Your task to perform on an android device: uninstall "Spotify" Image 0: 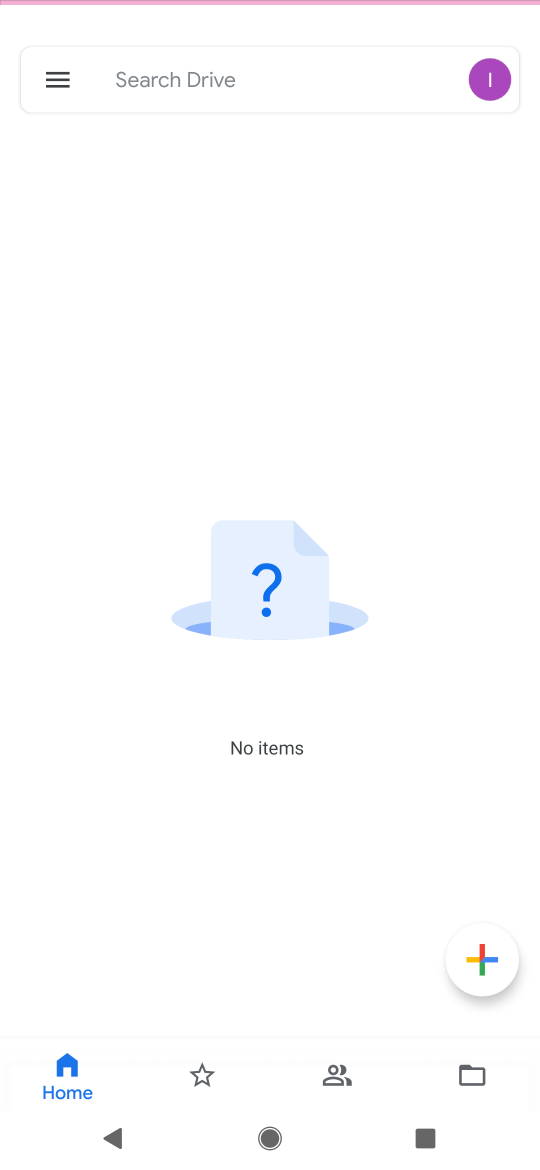
Step 0: click (456, 176)
Your task to perform on an android device: uninstall "Spotify" Image 1: 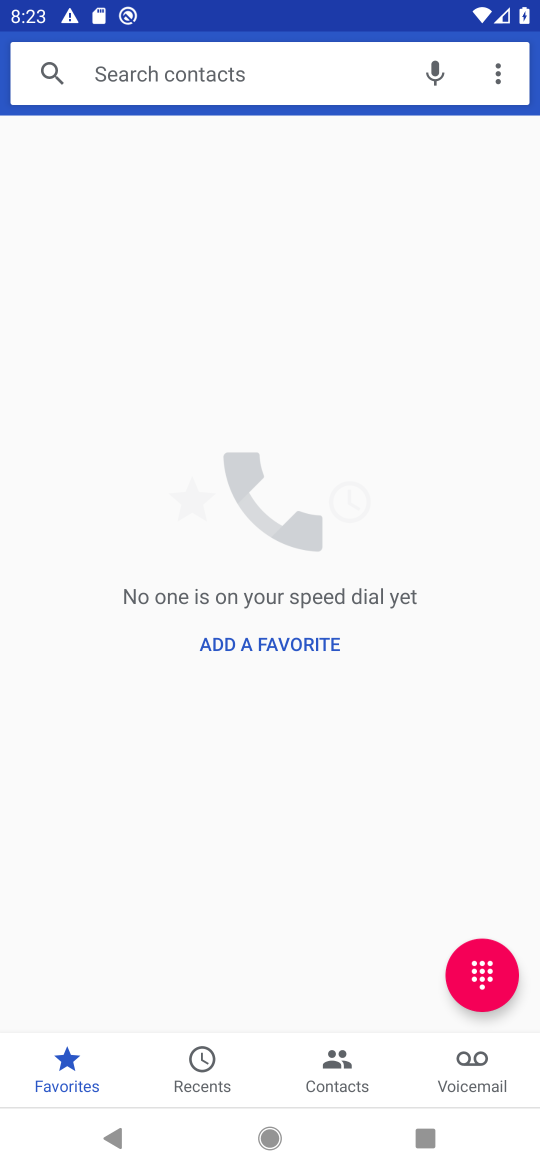
Step 1: press home button
Your task to perform on an android device: uninstall "Spotify" Image 2: 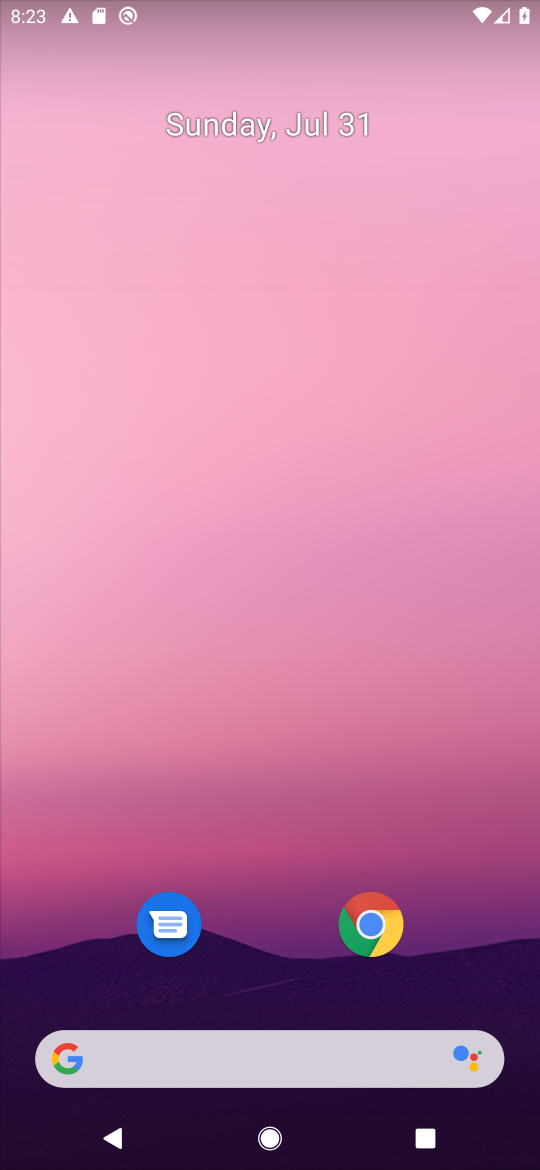
Step 2: drag from (244, 599) to (248, 541)
Your task to perform on an android device: uninstall "Spotify" Image 3: 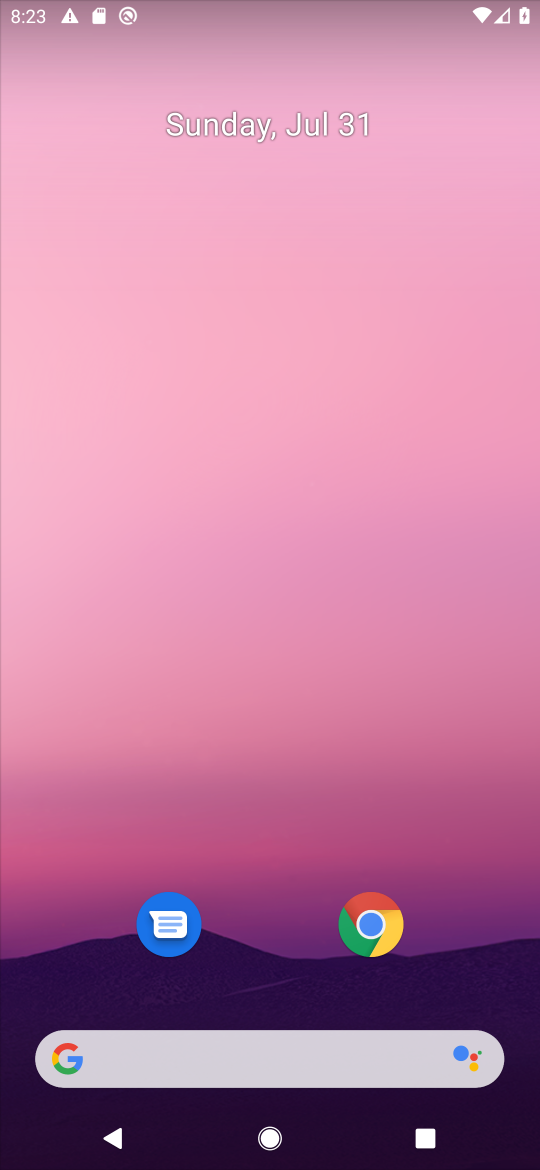
Step 3: drag from (287, 1021) to (327, 316)
Your task to perform on an android device: uninstall "Spotify" Image 4: 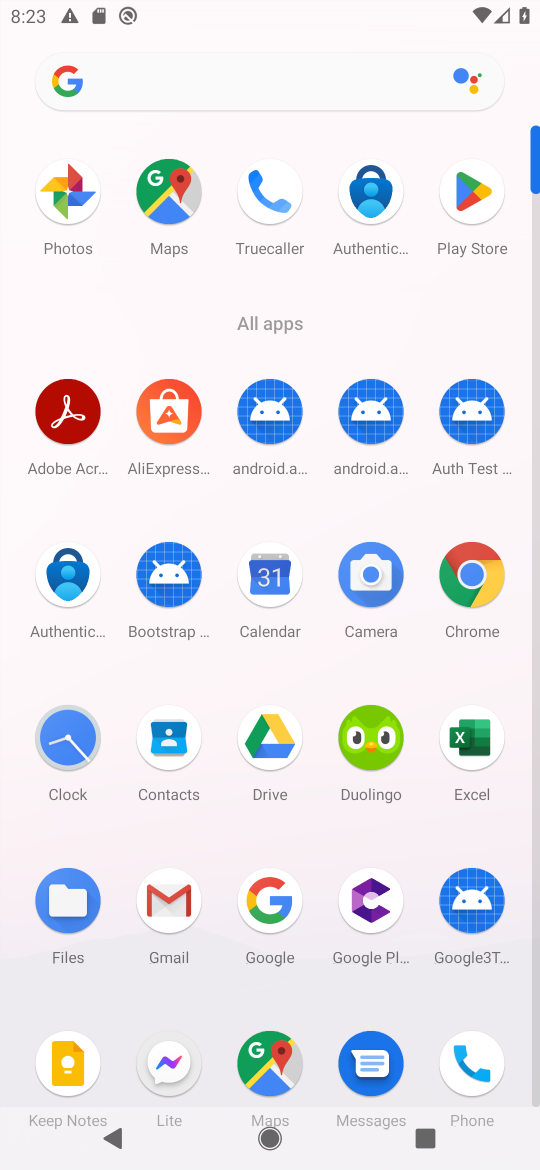
Step 4: click (468, 198)
Your task to perform on an android device: uninstall "Spotify" Image 5: 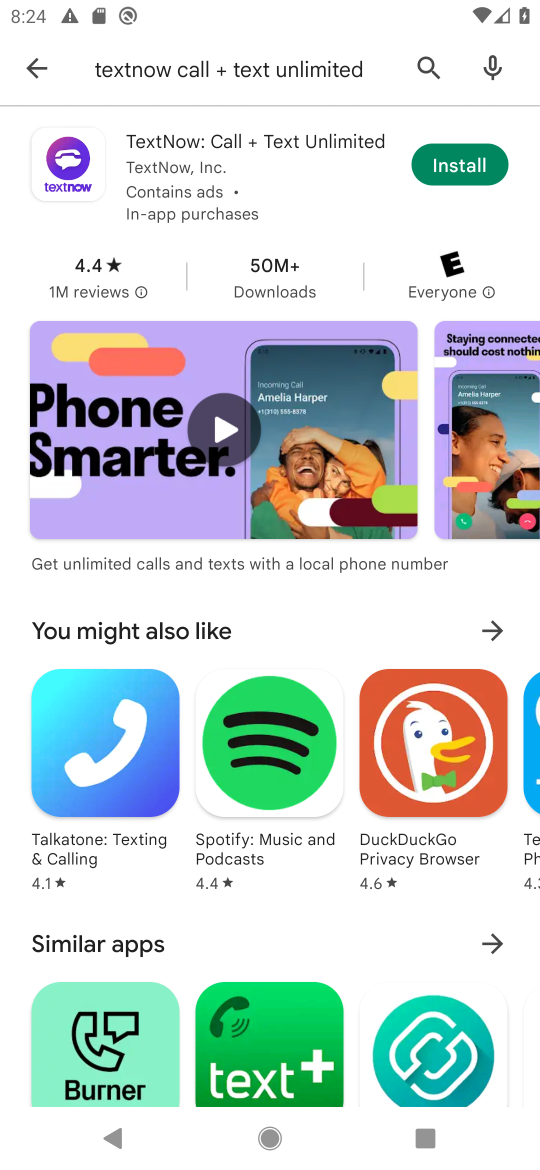
Step 5: click (45, 72)
Your task to perform on an android device: uninstall "Spotify" Image 6: 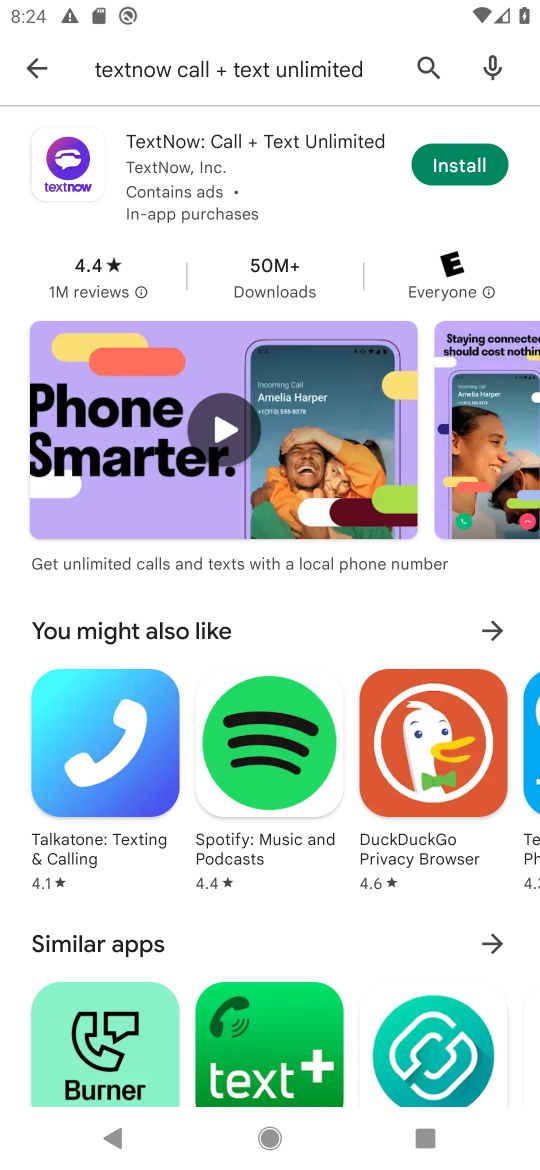
Step 6: click (32, 62)
Your task to perform on an android device: uninstall "Spotify" Image 7: 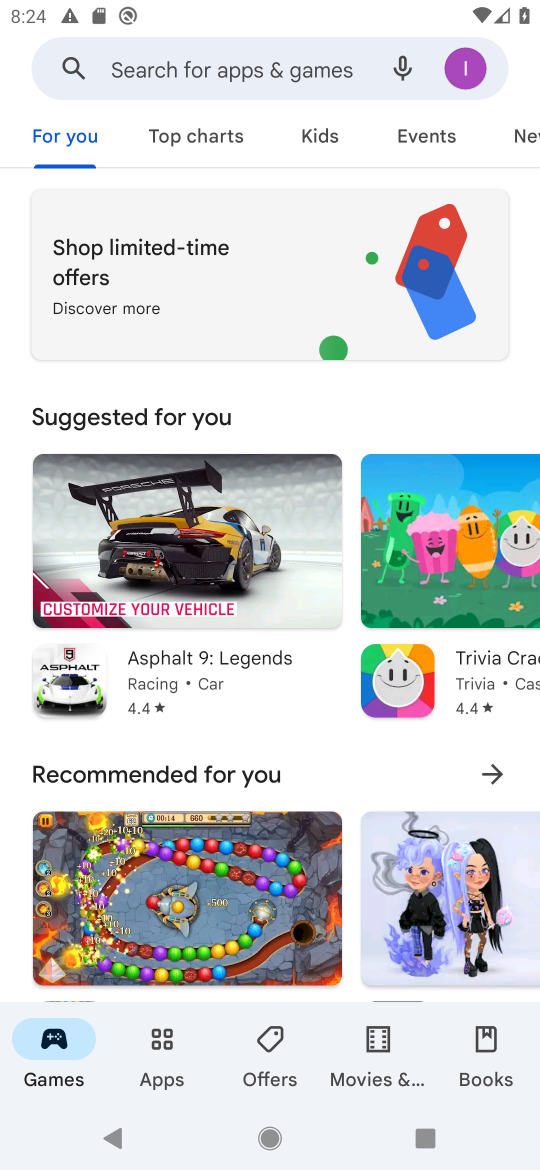
Step 7: click (165, 63)
Your task to perform on an android device: uninstall "Spotify" Image 8: 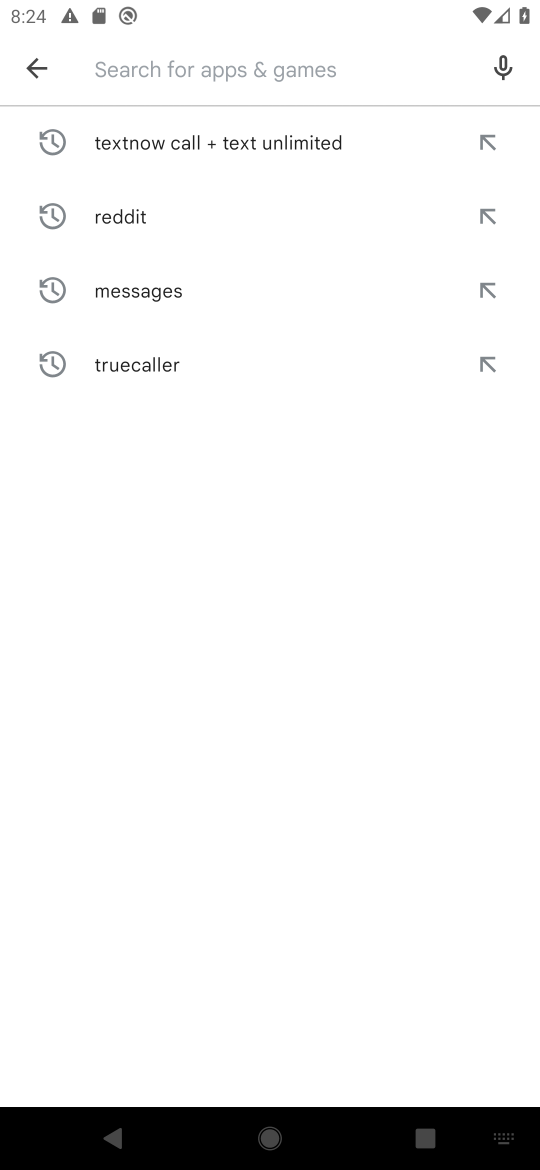
Step 8: type "Spotify"
Your task to perform on an android device: uninstall "Spotify" Image 9: 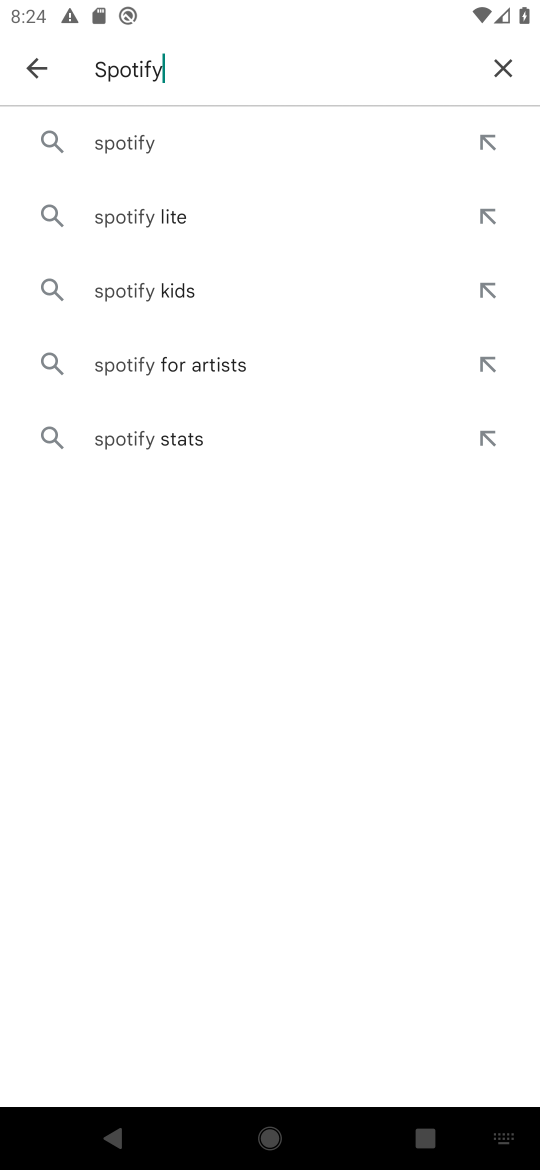
Step 9: click (91, 164)
Your task to perform on an android device: uninstall "Spotify" Image 10: 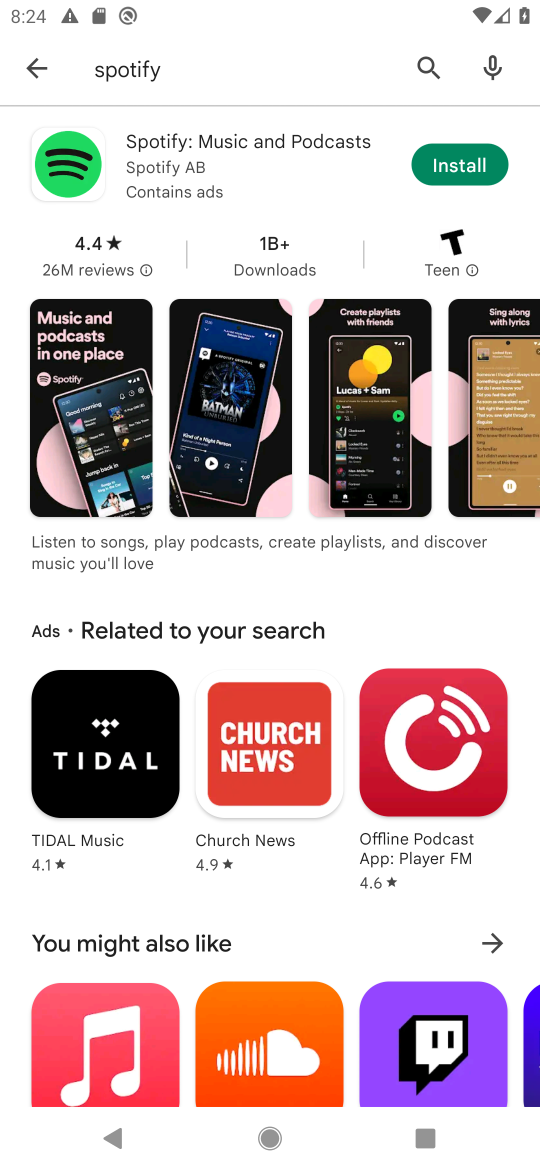
Step 10: task complete